Your task to perform on an android device: check out phone information Image 0: 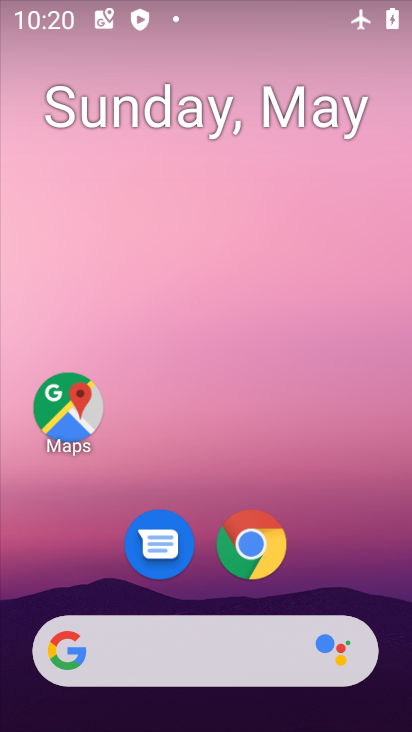
Step 0: drag from (331, 579) to (322, 252)
Your task to perform on an android device: check out phone information Image 1: 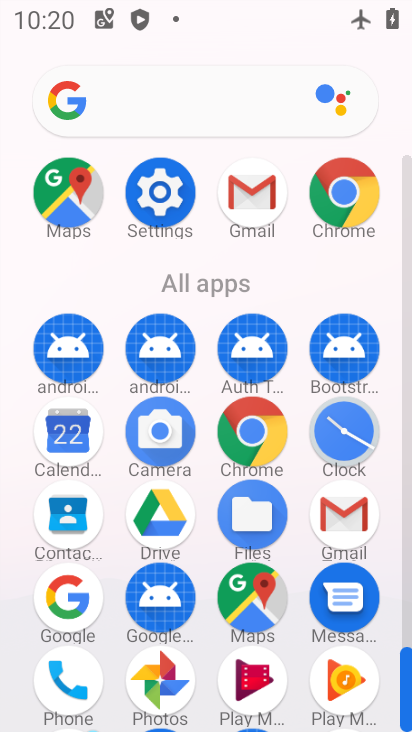
Step 1: click (159, 191)
Your task to perform on an android device: check out phone information Image 2: 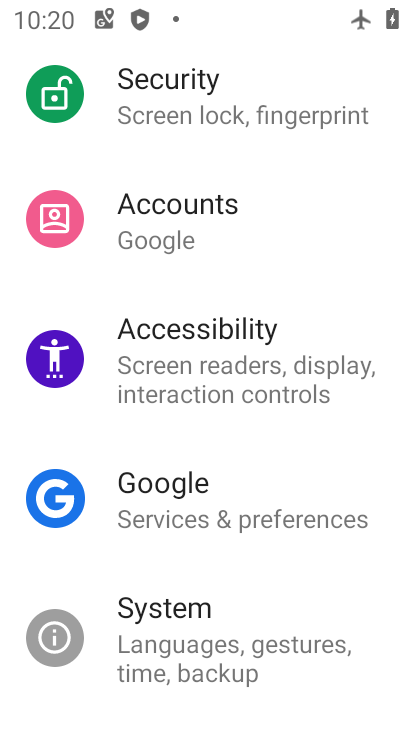
Step 2: drag from (198, 565) to (231, 176)
Your task to perform on an android device: check out phone information Image 3: 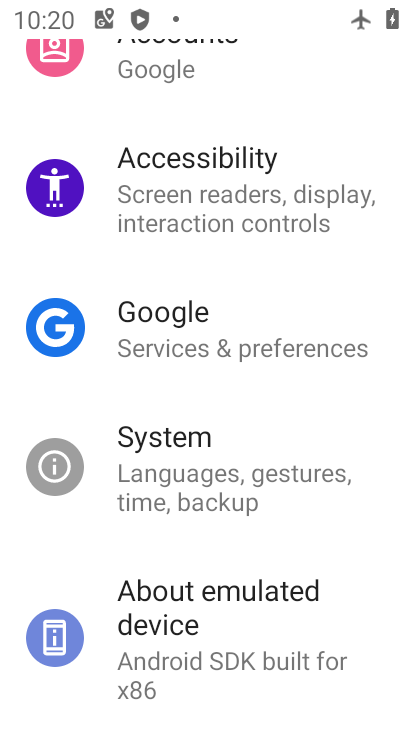
Step 3: click (249, 618)
Your task to perform on an android device: check out phone information Image 4: 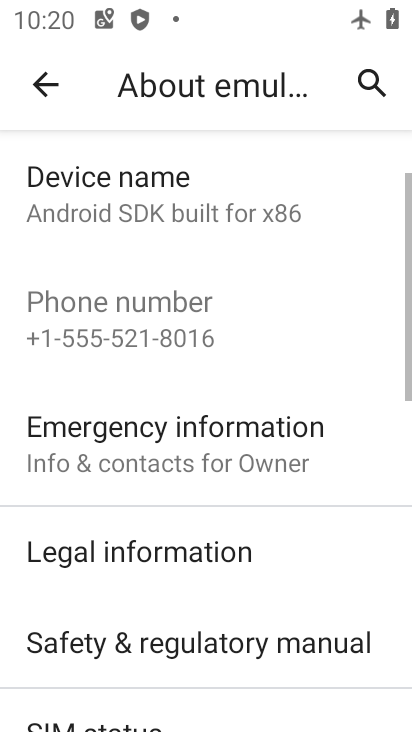
Step 4: task complete